Your task to perform on an android device: Do I have any events today? Image 0: 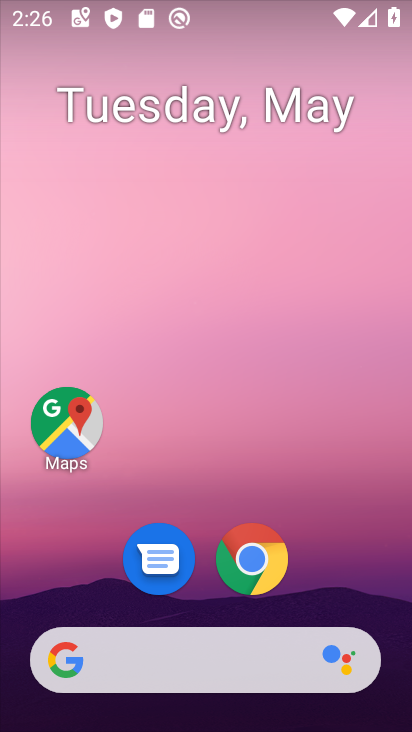
Step 0: press home button
Your task to perform on an android device: Do I have any events today? Image 1: 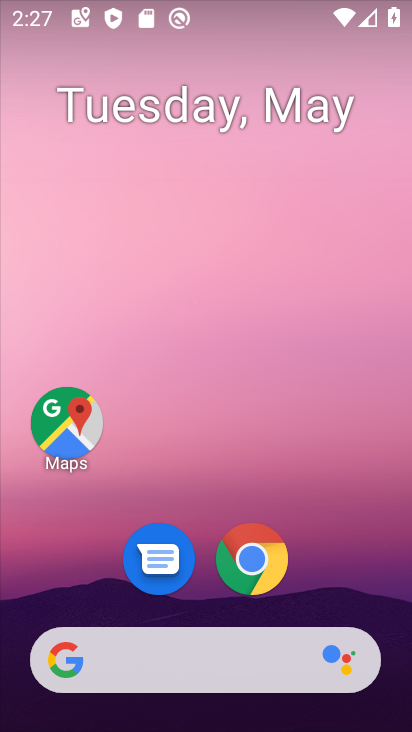
Step 1: drag from (233, 670) to (320, 169)
Your task to perform on an android device: Do I have any events today? Image 2: 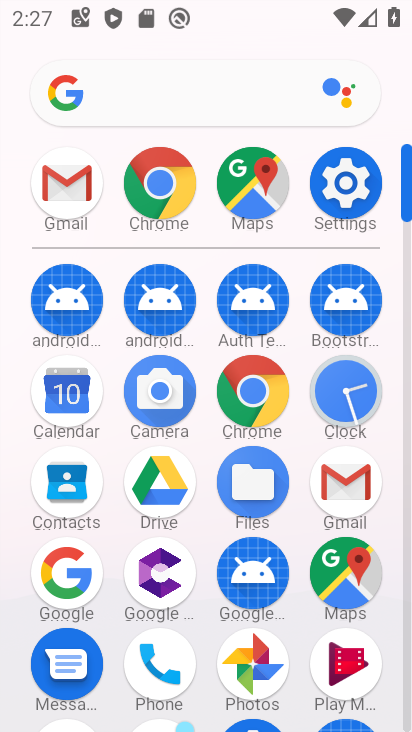
Step 2: click (73, 391)
Your task to perform on an android device: Do I have any events today? Image 3: 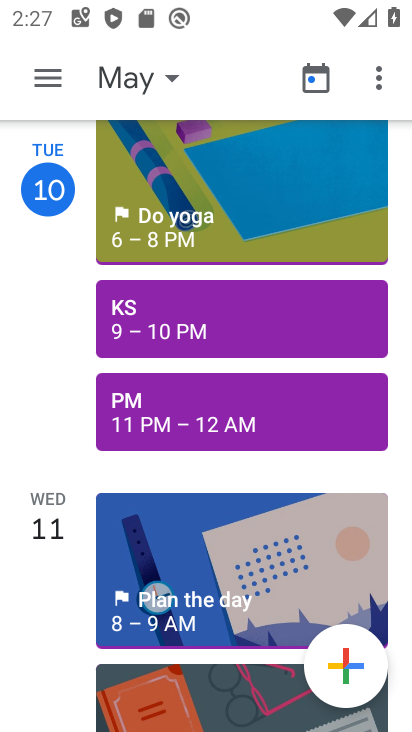
Step 3: click (149, 315)
Your task to perform on an android device: Do I have any events today? Image 4: 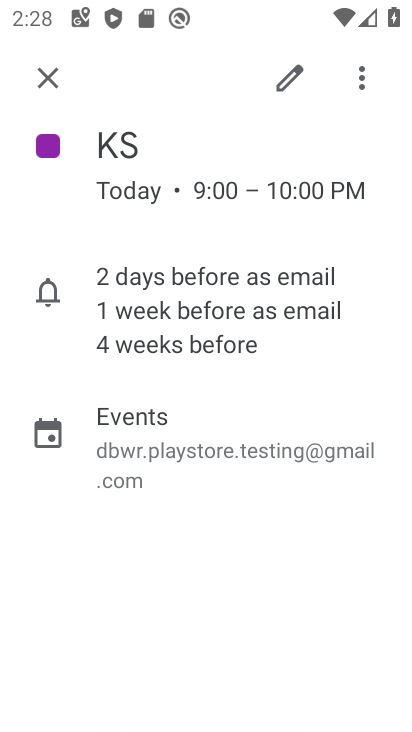
Step 4: task complete